Your task to perform on an android device: Open Android settings Image 0: 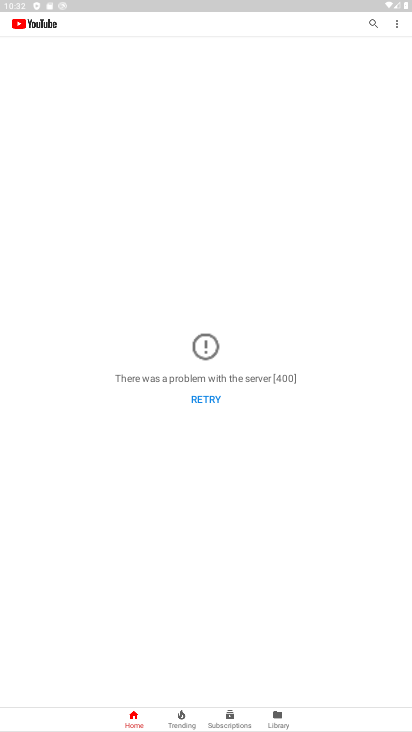
Step 0: press home button
Your task to perform on an android device: Open Android settings Image 1: 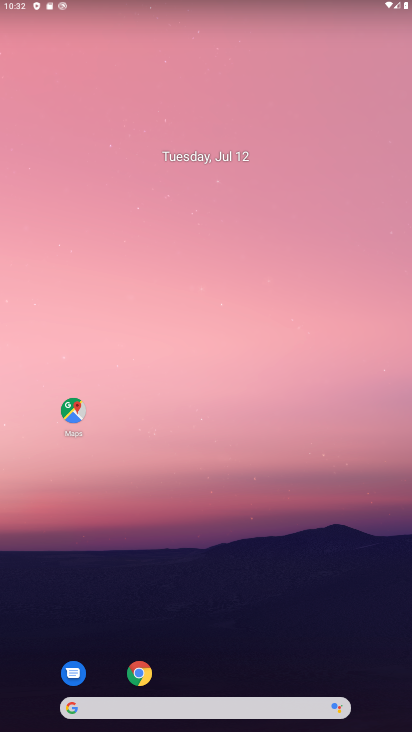
Step 1: drag from (183, 681) to (289, 161)
Your task to perform on an android device: Open Android settings Image 2: 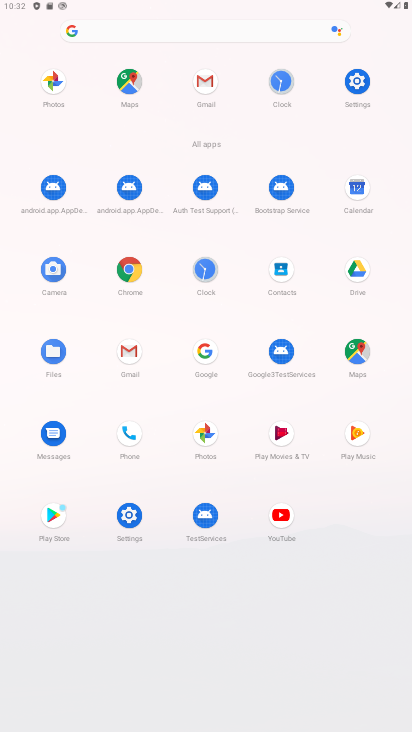
Step 2: click (130, 523)
Your task to perform on an android device: Open Android settings Image 3: 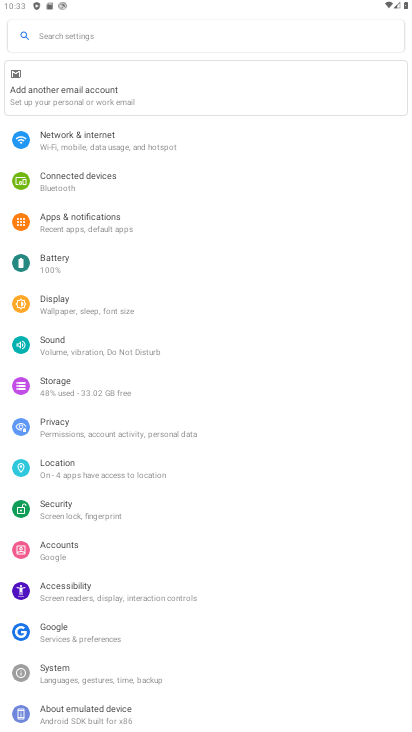
Step 3: task complete